Your task to perform on an android device: Is it going to rain tomorrow? Image 0: 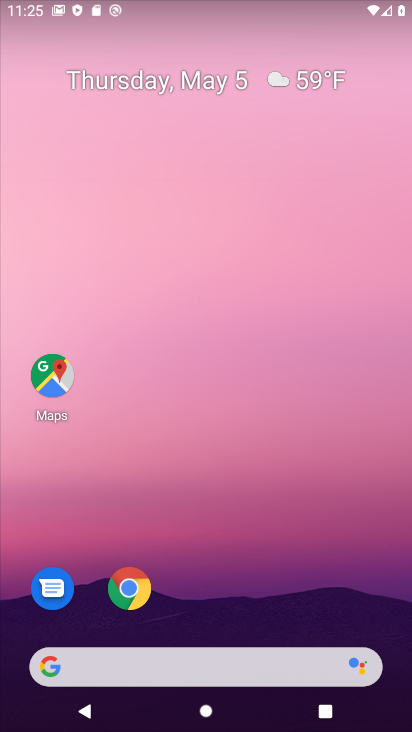
Step 0: click (309, 83)
Your task to perform on an android device: Is it going to rain tomorrow? Image 1: 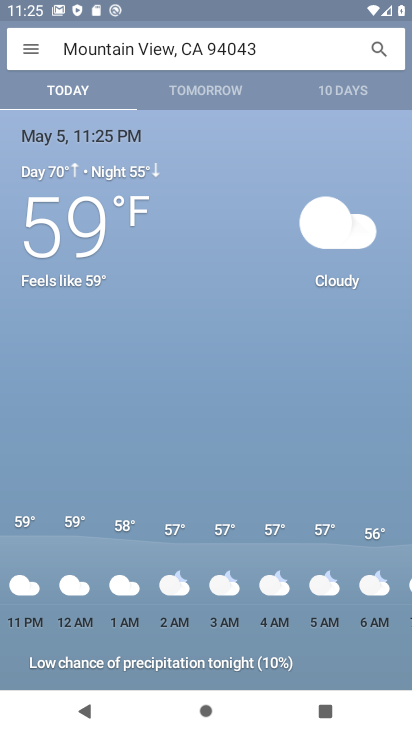
Step 1: task complete